Your task to perform on an android device: Go to location settings Image 0: 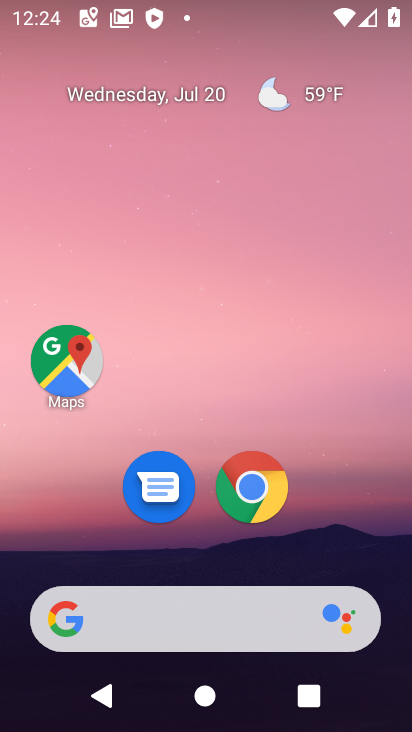
Step 0: drag from (67, 586) to (192, 69)
Your task to perform on an android device: Go to location settings Image 1: 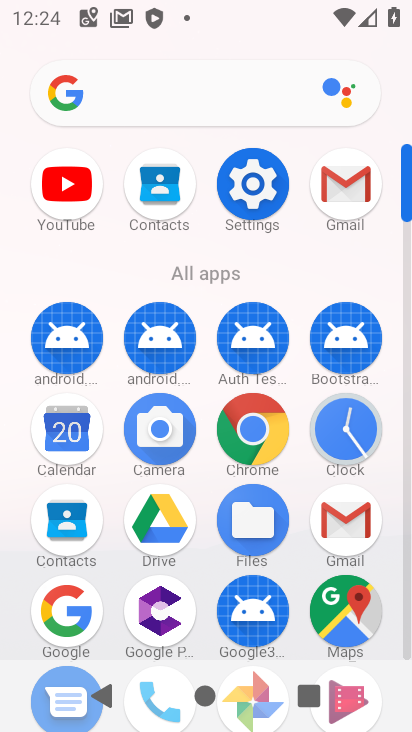
Step 1: click (234, 170)
Your task to perform on an android device: Go to location settings Image 2: 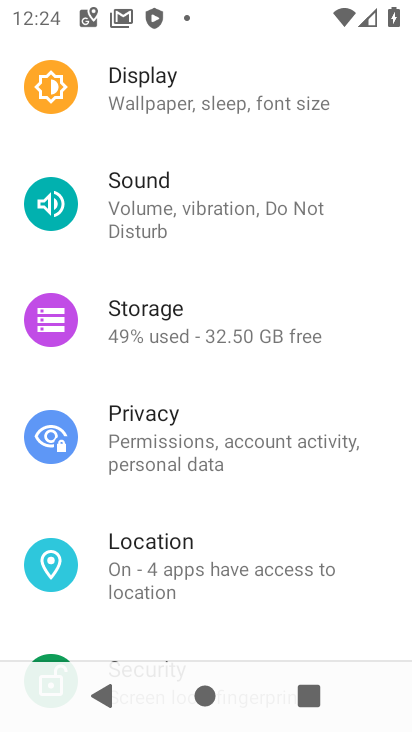
Step 2: click (184, 590)
Your task to perform on an android device: Go to location settings Image 3: 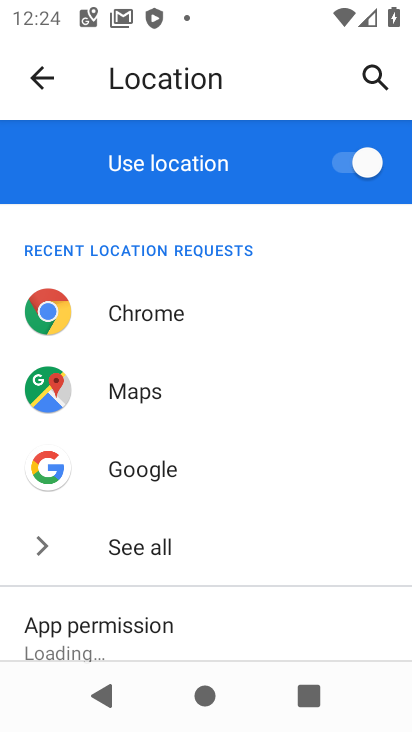
Step 3: task complete